Your task to perform on an android device: Go to Google maps Image 0: 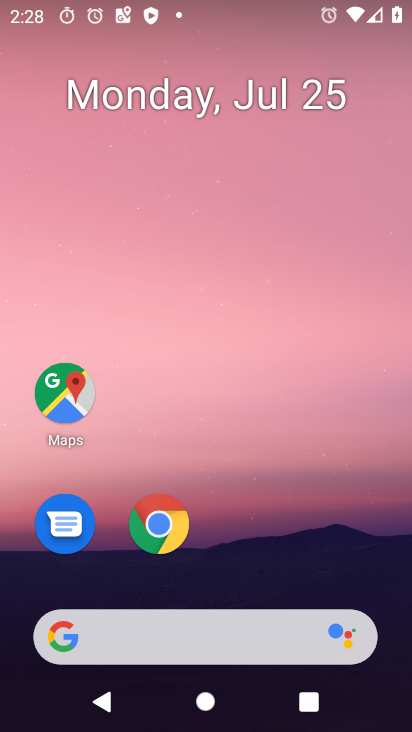
Step 0: press home button
Your task to perform on an android device: Go to Google maps Image 1: 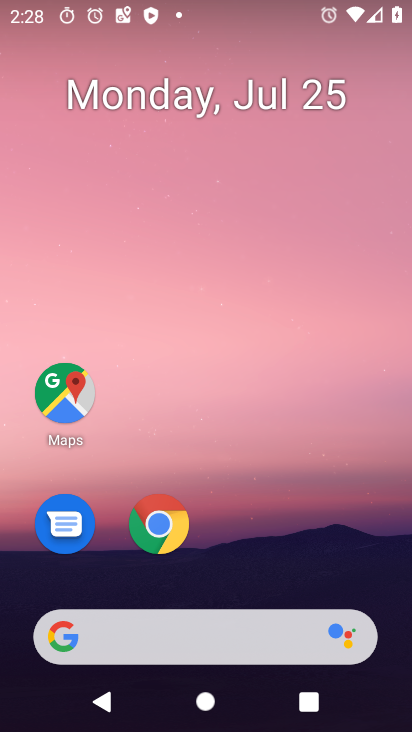
Step 1: drag from (264, 564) to (29, 115)
Your task to perform on an android device: Go to Google maps Image 2: 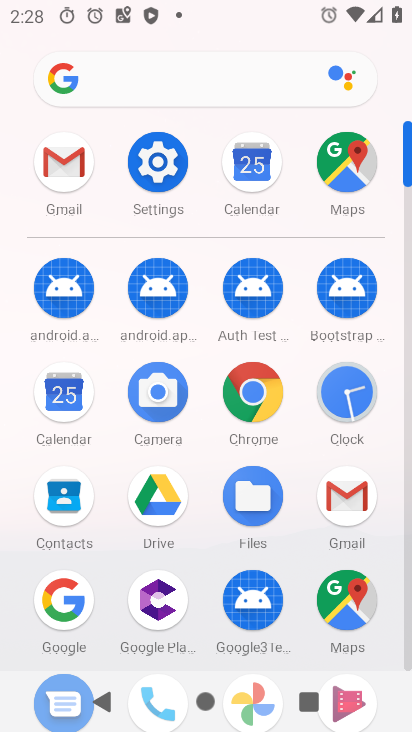
Step 2: click (353, 175)
Your task to perform on an android device: Go to Google maps Image 3: 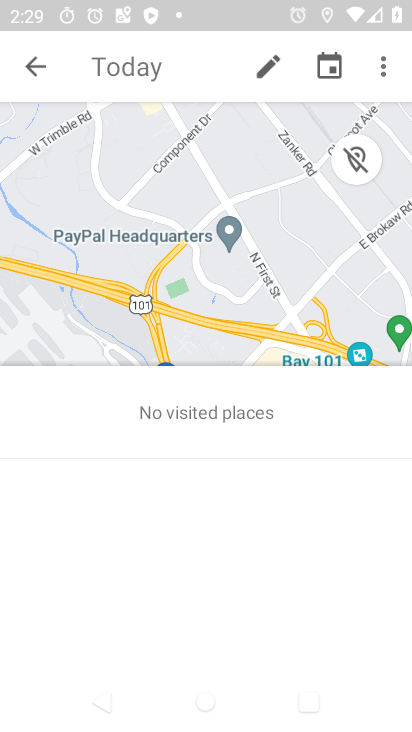
Step 3: task complete